Your task to perform on an android device: create a new album in the google photos Image 0: 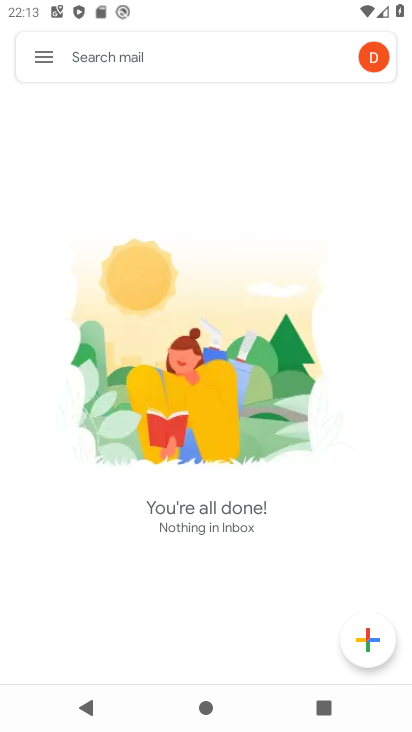
Step 0: press home button
Your task to perform on an android device: create a new album in the google photos Image 1: 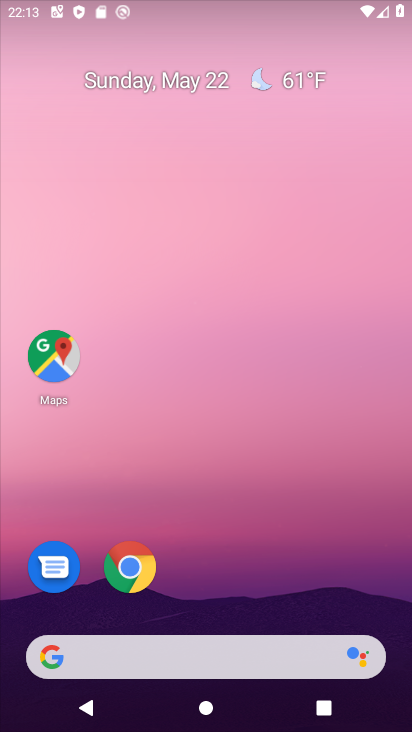
Step 1: drag from (242, 657) to (343, 18)
Your task to perform on an android device: create a new album in the google photos Image 2: 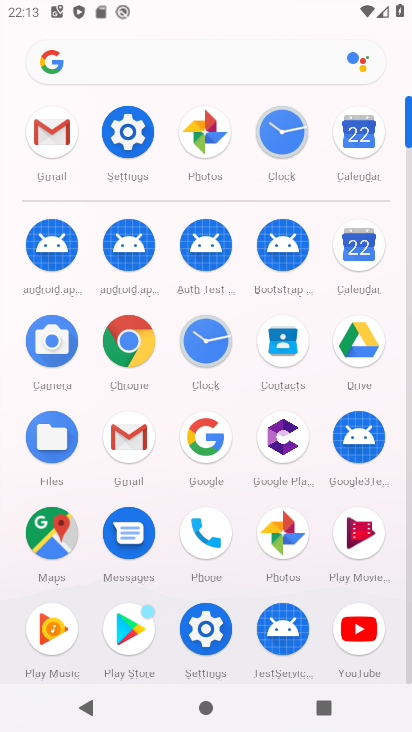
Step 2: click (308, 539)
Your task to perform on an android device: create a new album in the google photos Image 3: 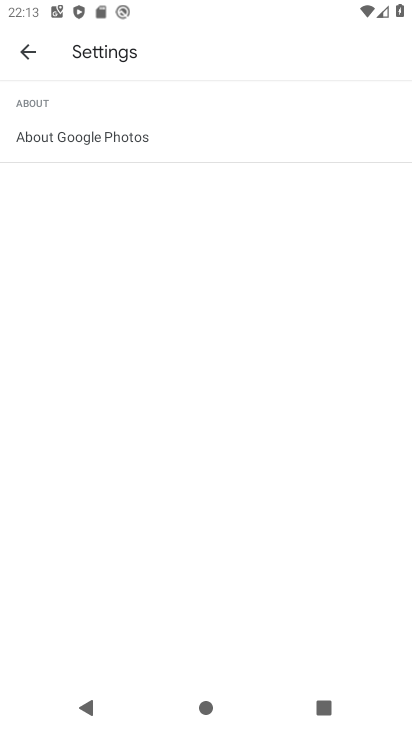
Step 3: click (40, 44)
Your task to perform on an android device: create a new album in the google photos Image 4: 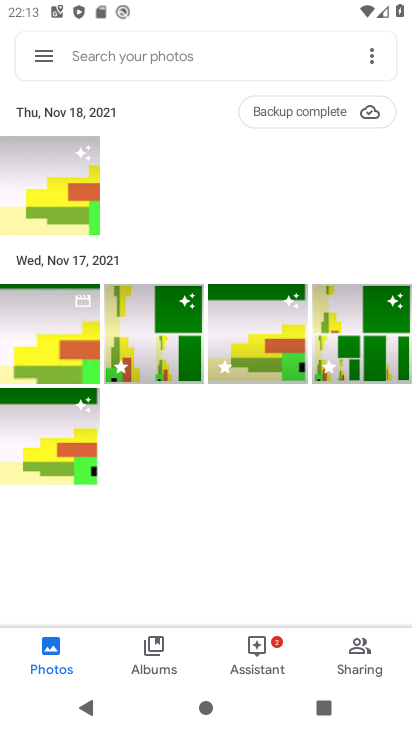
Step 4: click (54, 186)
Your task to perform on an android device: create a new album in the google photos Image 5: 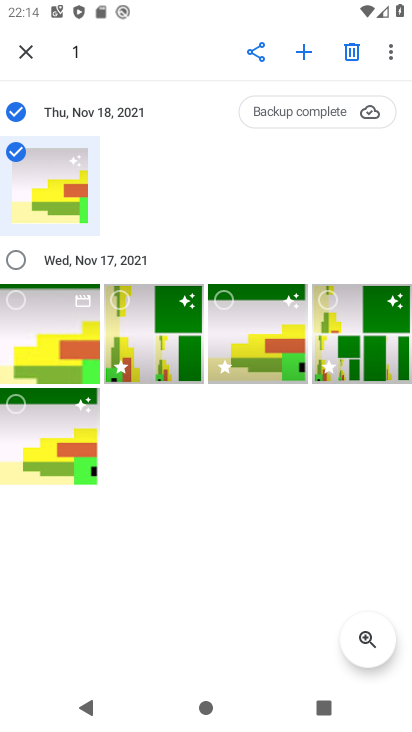
Step 5: click (51, 347)
Your task to perform on an android device: create a new album in the google photos Image 6: 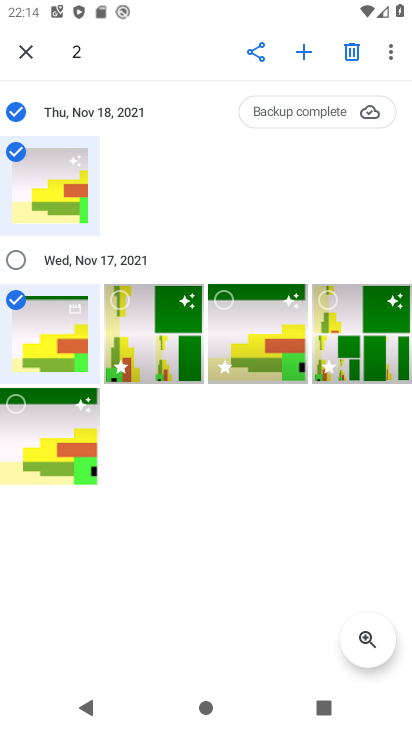
Step 6: click (306, 52)
Your task to perform on an android device: create a new album in the google photos Image 7: 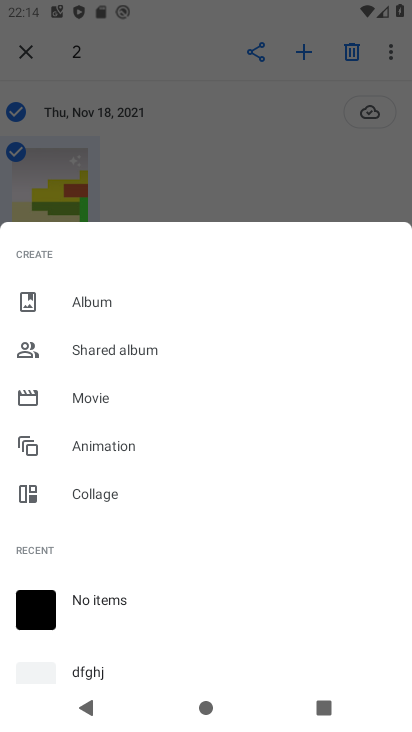
Step 7: click (78, 291)
Your task to perform on an android device: create a new album in the google photos Image 8: 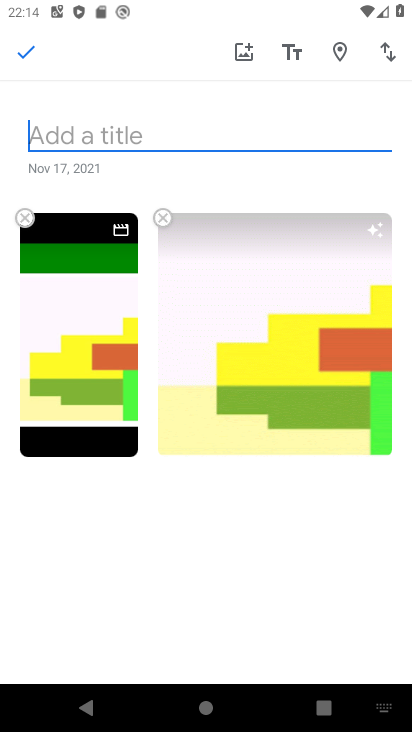
Step 8: click (27, 50)
Your task to perform on an android device: create a new album in the google photos Image 9: 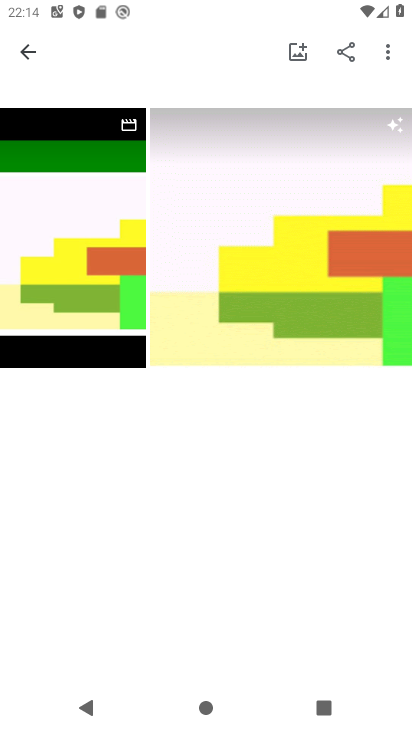
Step 9: task complete